Your task to perform on an android device: Search for Mexican restaurants on Maps Image 0: 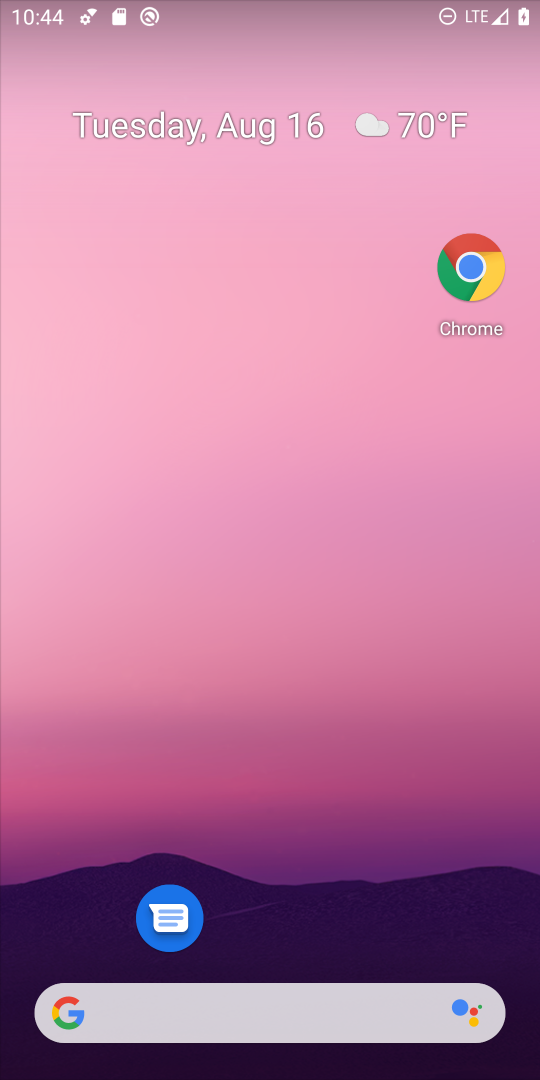
Step 0: drag from (302, 966) to (254, 472)
Your task to perform on an android device: Search for Mexican restaurants on Maps Image 1: 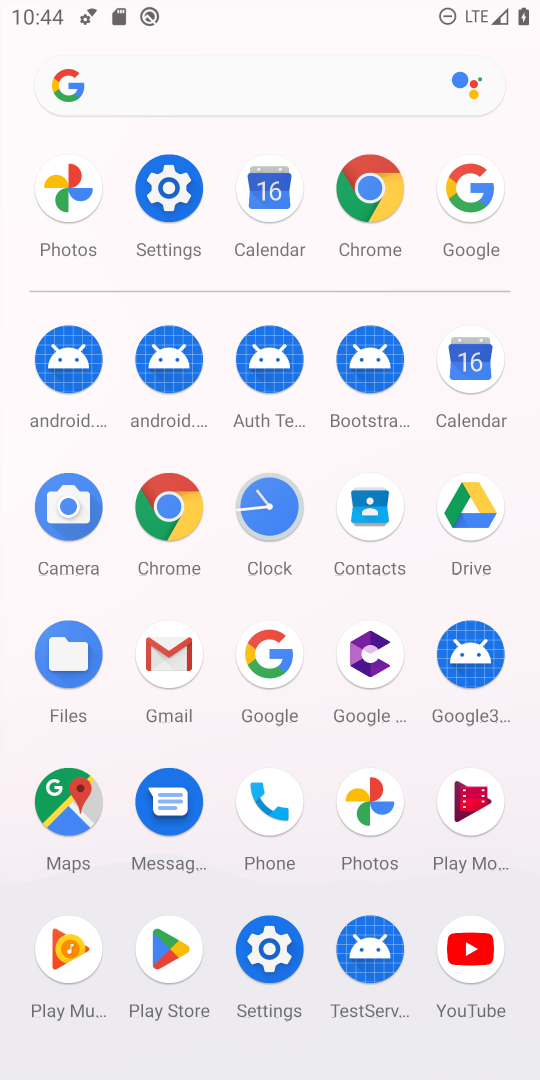
Step 1: click (66, 822)
Your task to perform on an android device: Search for Mexican restaurants on Maps Image 2: 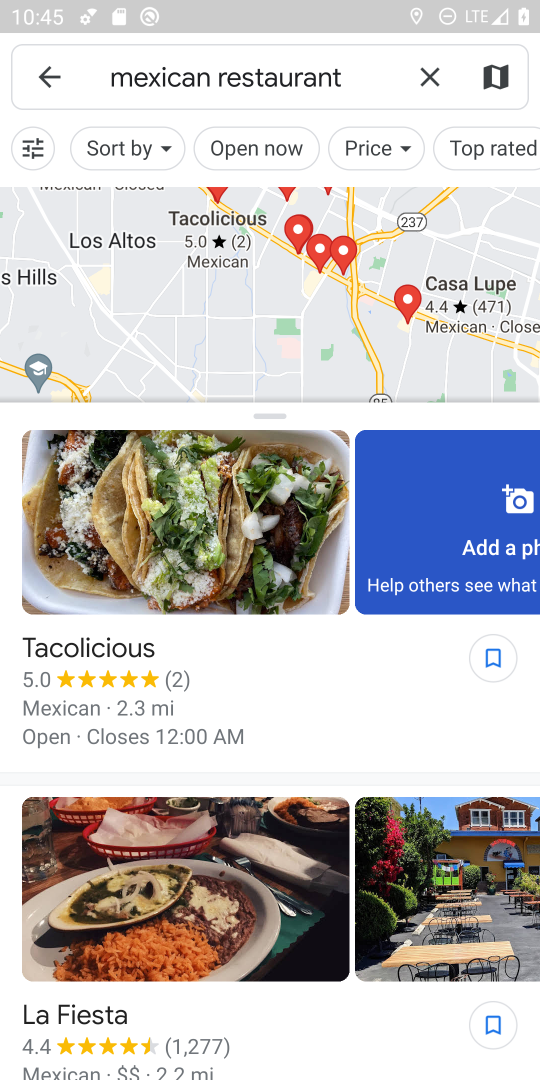
Step 2: task complete